Your task to perform on an android device: Show me productivity apps on the Play Store Image 0: 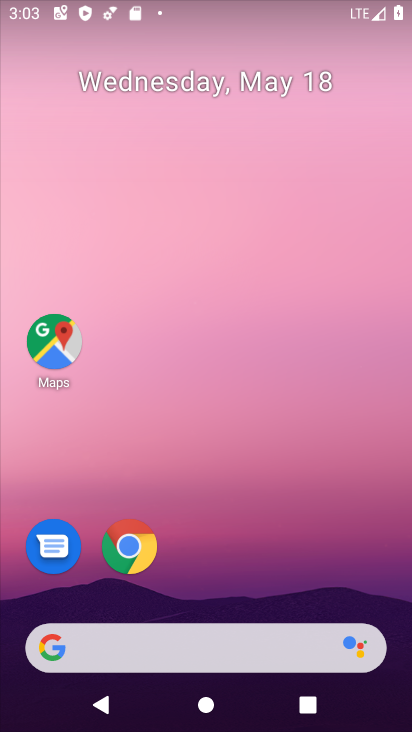
Step 0: drag from (233, 717) to (247, 145)
Your task to perform on an android device: Show me productivity apps on the Play Store Image 1: 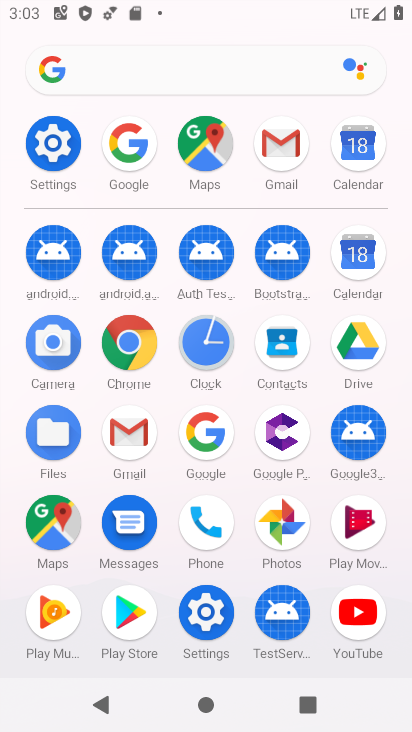
Step 1: click (130, 608)
Your task to perform on an android device: Show me productivity apps on the Play Store Image 2: 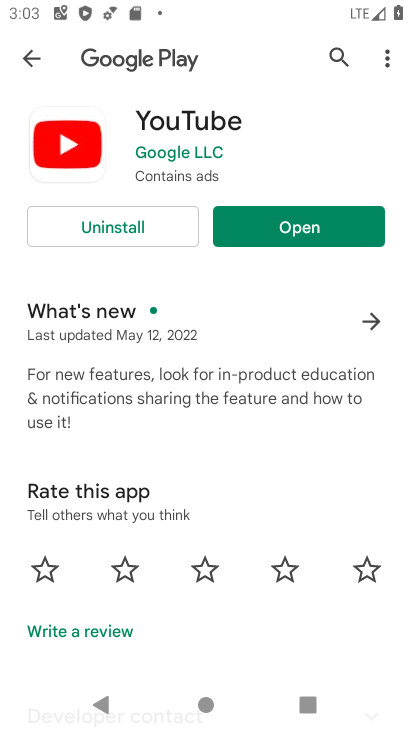
Step 2: click (33, 54)
Your task to perform on an android device: Show me productivity apps on the Play Store Image 3: 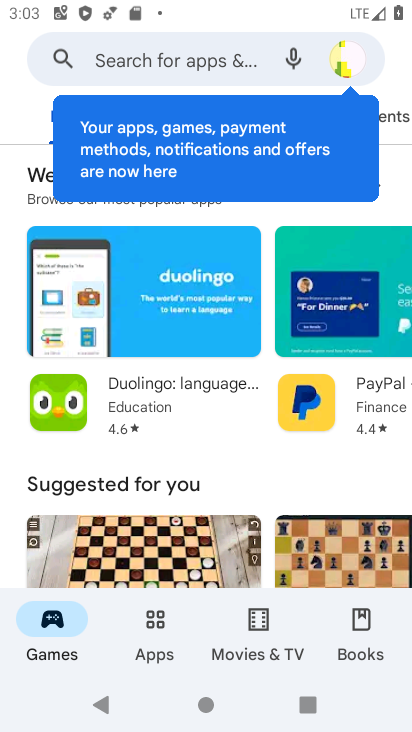
Step 3: click (153, 627)
Your task to perform on an android device: Show me productivity apps on the Play Store Image 4: 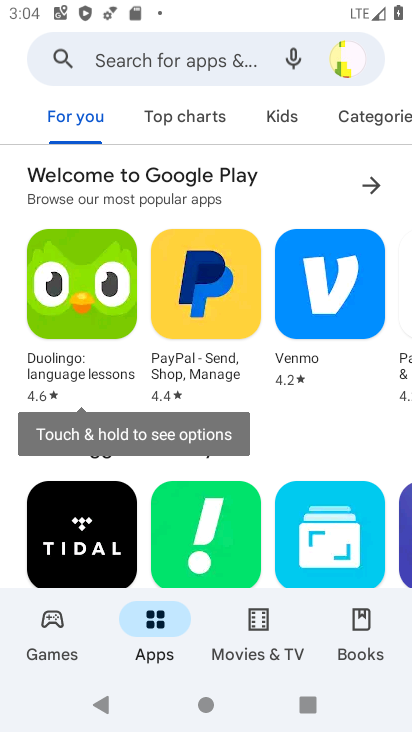
Step 4: click (366, 115)
Your task to perform on an android device: Show me productivity apps on the Play Store Image 5: 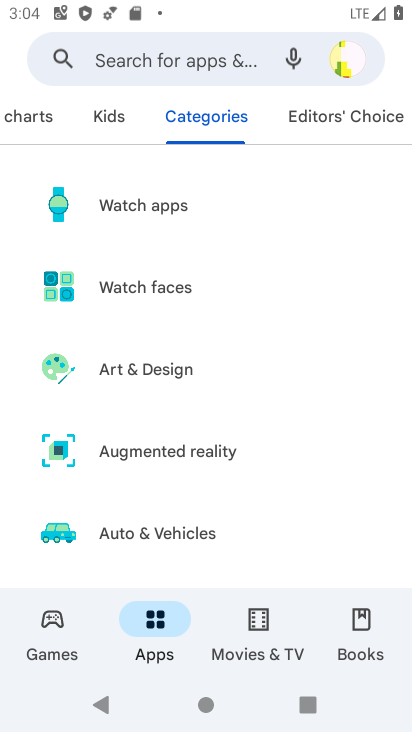
Step 5: drag from (219, 564) to (228, 178)
Your task to perform on an android device: Show me productivity apps on the Play Store Image 6: 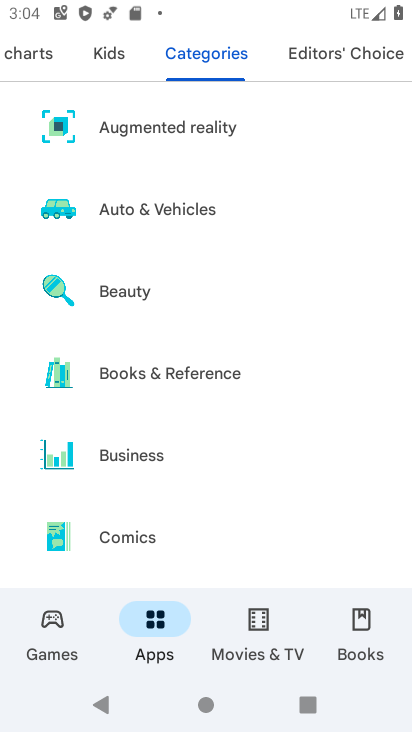
Step 6: drag from (184, 526) to (201, 171)
Your task to perform on an android device: Show me productivity apps on the Play Store Image 7: 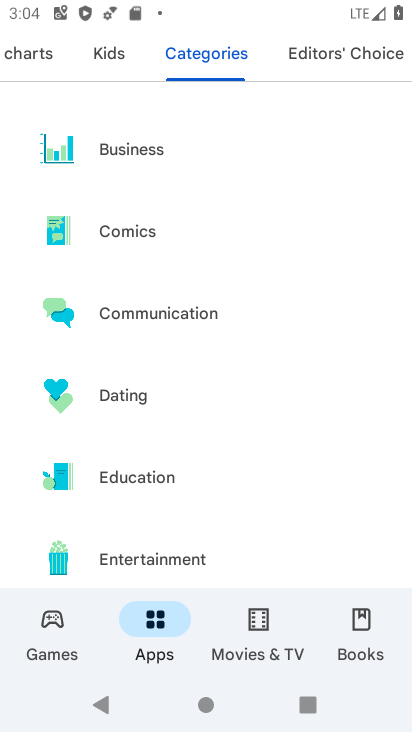
Step 7: drag from (176, 535) to (191, 142)
Your task to perform on an android device: Show me productivity apps on the Play Store Image 8: 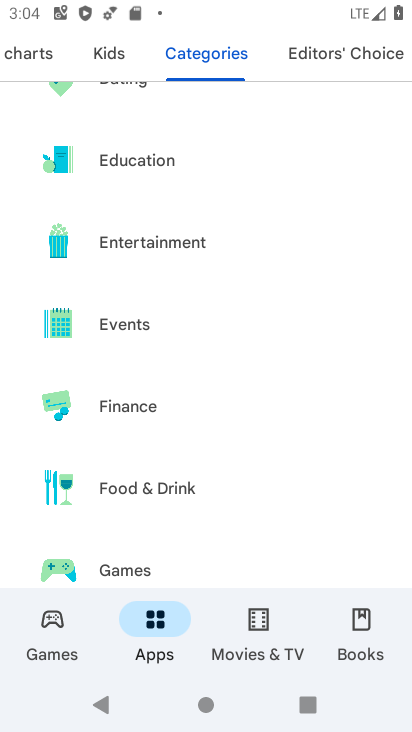
Step 8: drag from (181, 545) to (184, 187)
Your task to perform on an android device: Show me productivity apps on the Play Store Image 9: 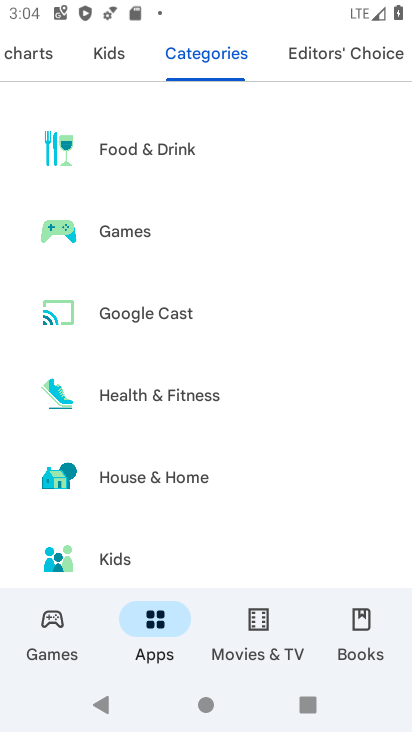
Step 9: drag from (148, 546) to (171, 93)
Your task to perform on an android device: Show me productivity apps on the Play Store Image 10: 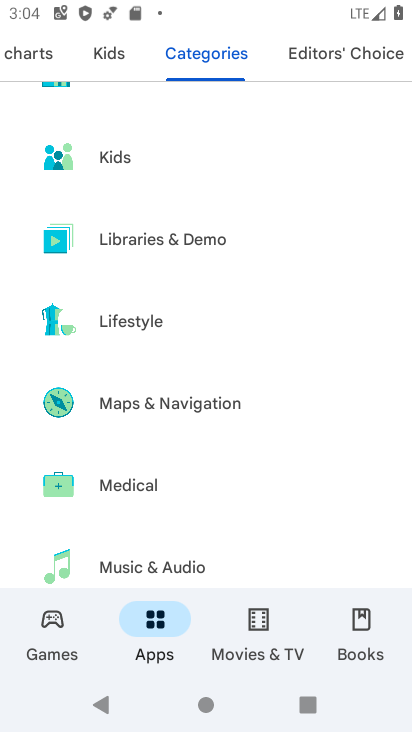
Step 10: drag from (166, 522) to (178, 209)
Your task to perform on an android device: Show me productivity apps on the Play Store Image 11: 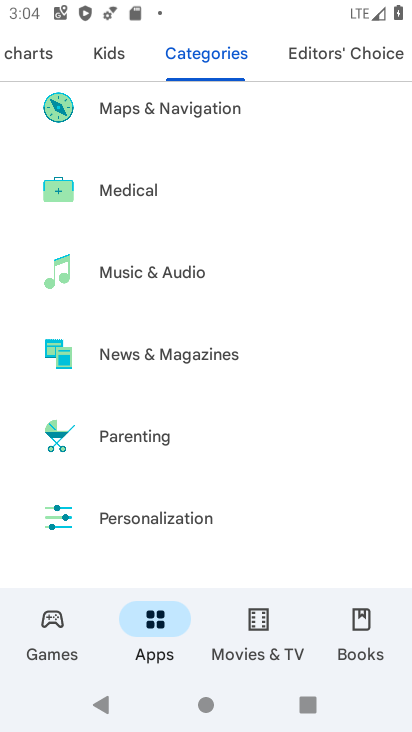
Step 11: drag from (180, 520) to (185, 194)
Your task to perform on an android device: Show me productivity apps on the Play Store Image 12: 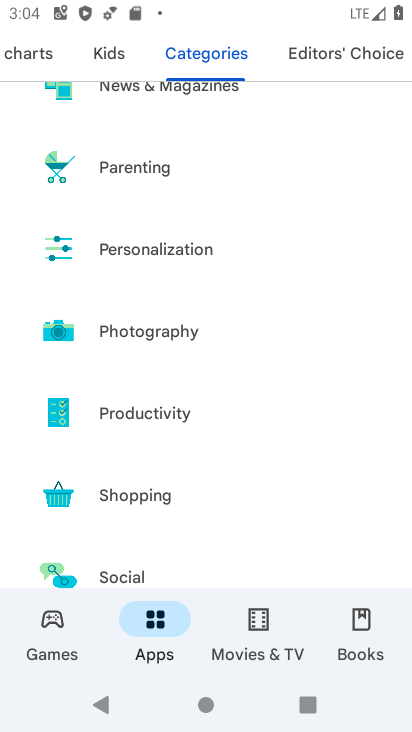
Step 12: click (148, 405)
Your task to perform on an android device: Show me productivity apps on the Play Store Image 13: 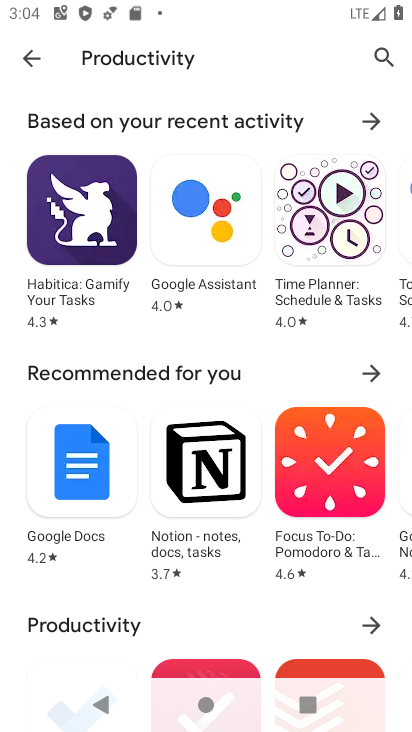
Step 13: task complete